Your task to perform on an android device: What's the weather going to be tomorrow? Image 0: 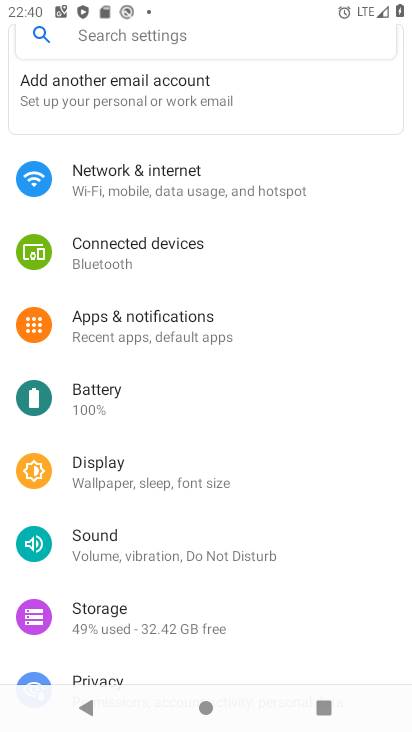
Step 0: press home button
Your task to perform on an android device: What's the weather going to be tomorrow? Image 1: 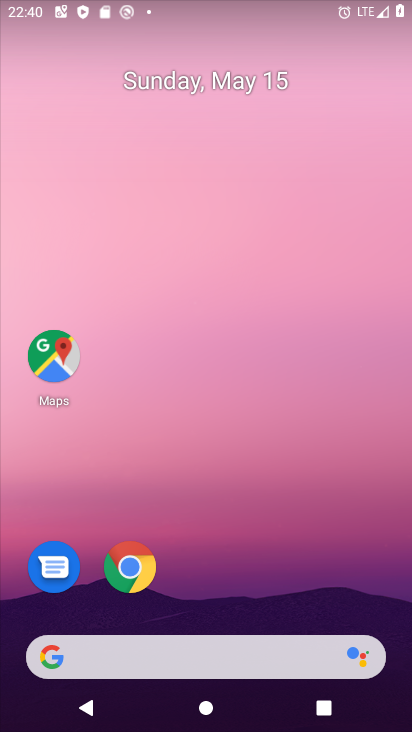
Step 1: click (223, 662)
Your task to perform on an android device: What's the weather going to be tomorrow? Image 2: 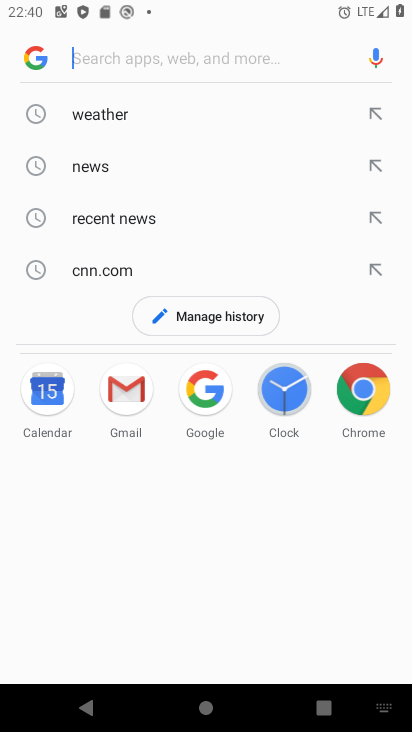
Step 2: type "What's the weather going to be tomorrow?"
Your task to perform on an android device: What's the weather going to be tomorrow? Image 3: 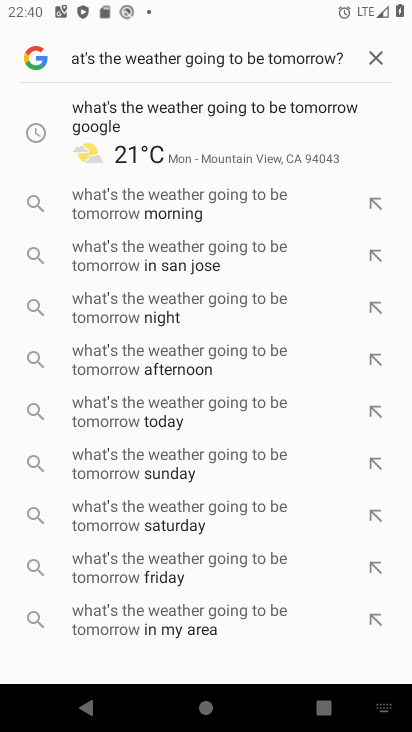
Step 3: click (306, 125)
Your task to perform on an android device: What's the weather going to be tomorrow? Image 4: 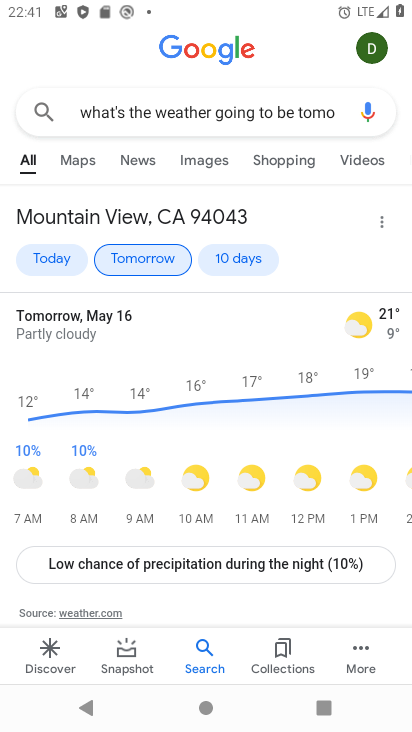
Step 4: task complete